Your task to perform on an android device: Search for the best way to make a resume. Image 0: 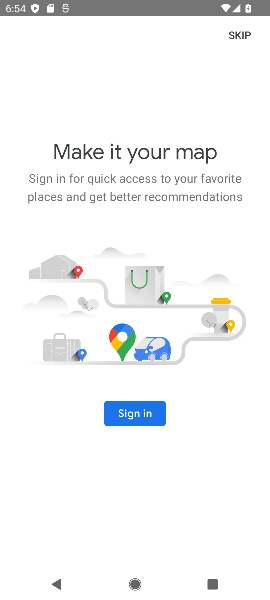
Step 0: press home button
Your task to perform on an android device: Search for the best way to make a resume. Image 1: 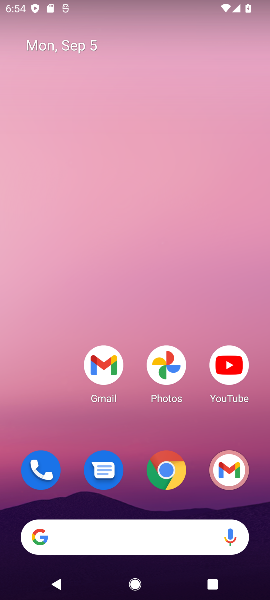
Step 1: click (106, 529)
Your task to perform on an android device: Search for the best way to make a resume. Image 2: 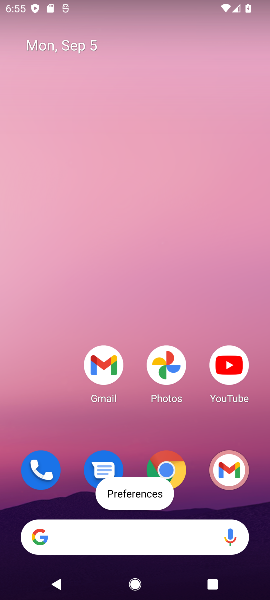
Step 2: click (66, 533)
Your task to perform on an android device: Search for the best way to make a resume. Image 3: 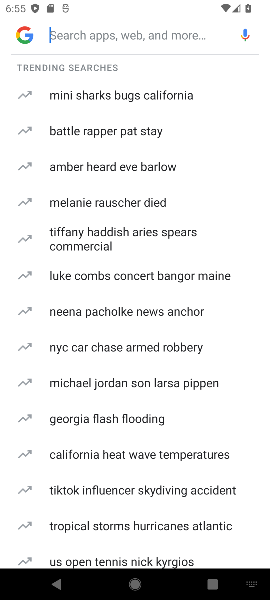
Step 3: click (79, 31)
Your task to perform on an android device: Search for the best way to make a resume. Image 4: 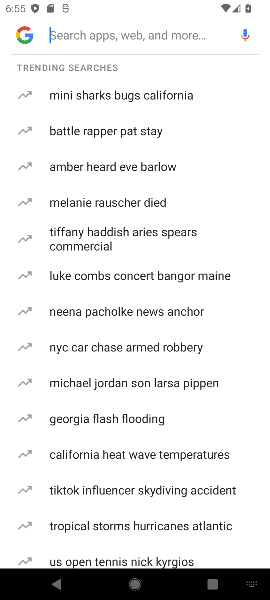
Step 4: type " best way to make a resume"
Your task to perform on an android device: Search for the best way to make a resume. Image 5: 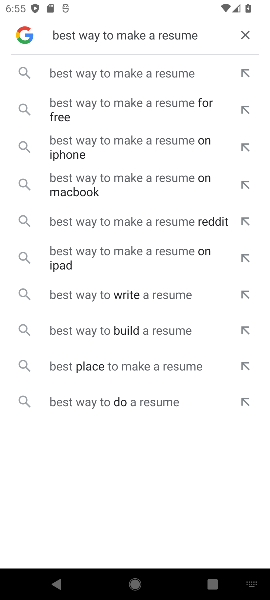
Step 5: click (169, 65)
Your task to perform on an android device: Search for the best way to make a resume. Image 6: 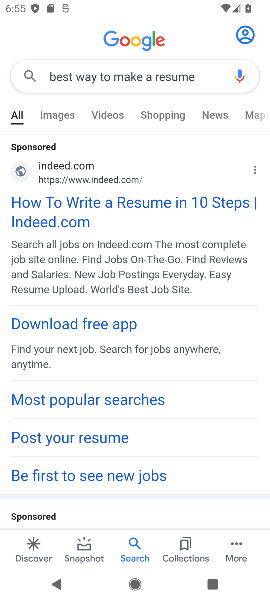
Step 6: click (117, 194)
Your task to perform on an android device: Search for the best way to make a resume. Image 7: 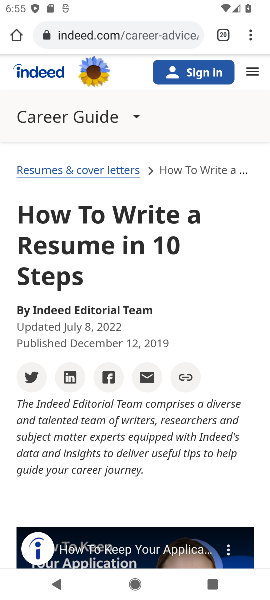
Step 7: task complete